Your task to perform on an android device: Find coffee shops on Maps Image 0: 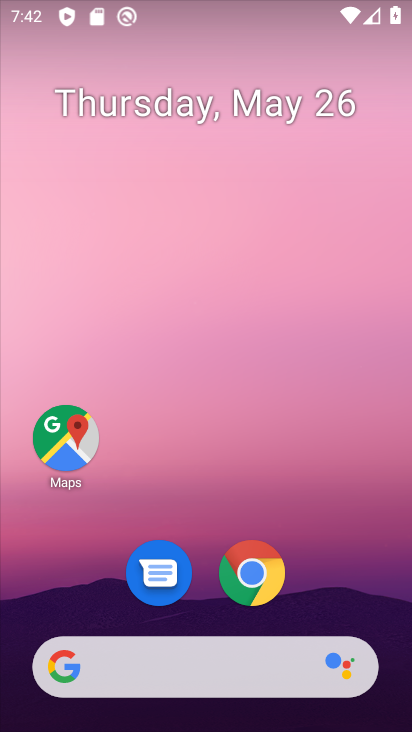
Step 0: click (59, 449)
Your task to perform on an android device: Find coffee shops on Maps Image 1: 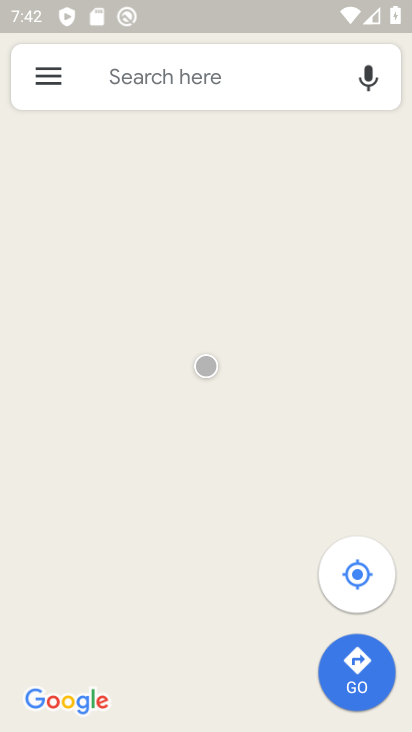
Step 1: click (205, 64)
Your task to perform on an android device: Find coffee shops on Maps Image 2: 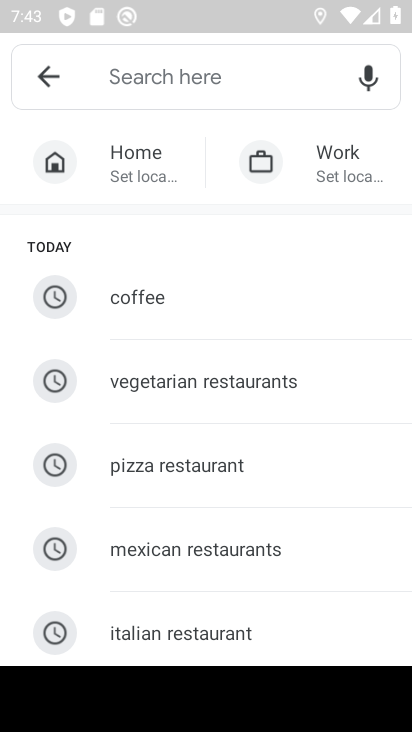
Step 2: type "coffee shops"
Your task to perform on an android device: Find coffee shops on Maps Image 3: 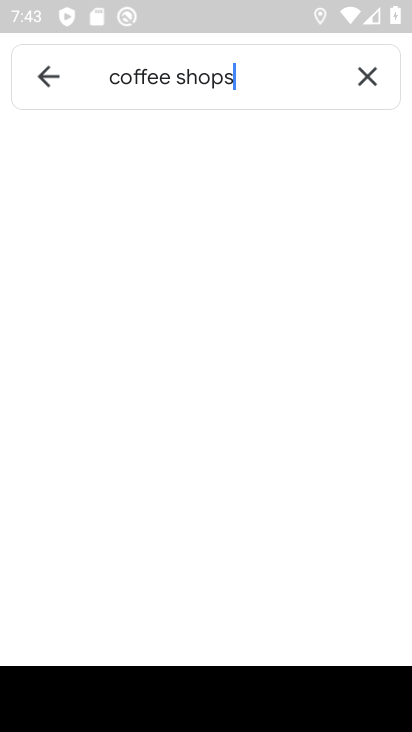
Step 3: type ""
Your task to perform on an android device: Find coffee shops on Maps Image 4: 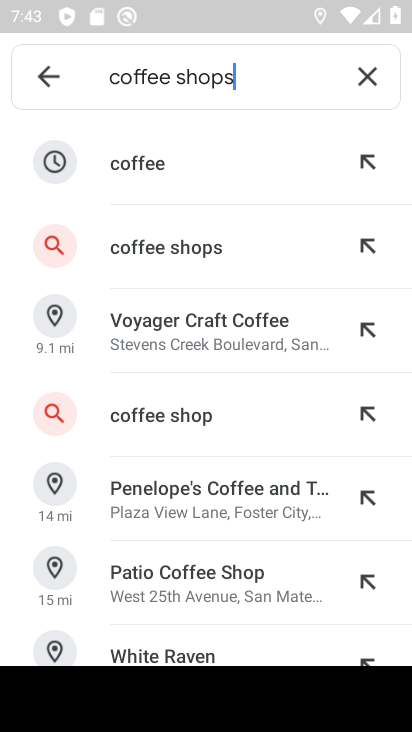
Step 4: click (248, 249)
Your task to perform on an android device: Find coffee shops on Maps Image 5: 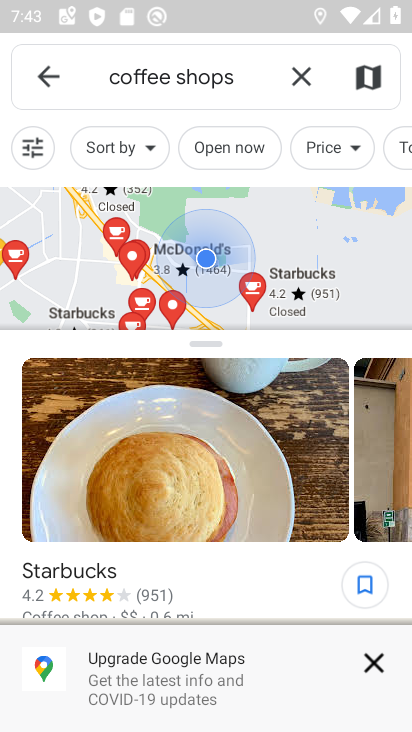
Step 5: task complete